Your task to perform on an android device: turn off sleep mode Image 0: 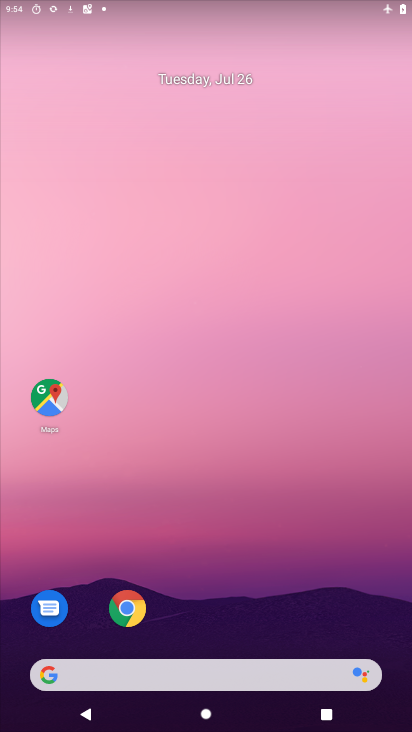
Step 0: drag from (215, 638) to (196, 83)
Your task to perform on an android device: turn off sleep mode Image 1: 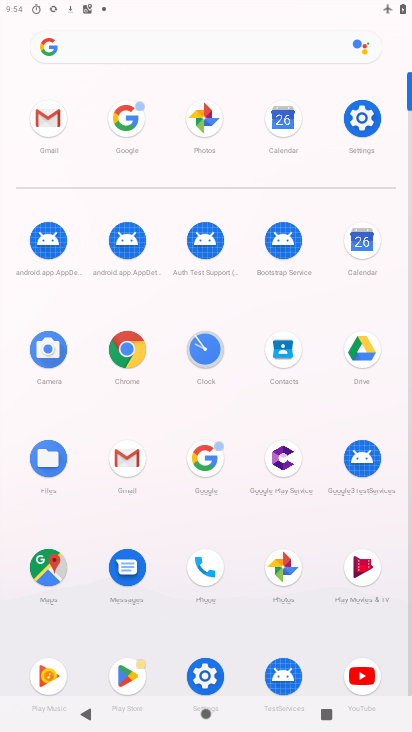
Step 1: click (357, 118)
Your task to perform on an android device: turn off sleep mode Image 2: 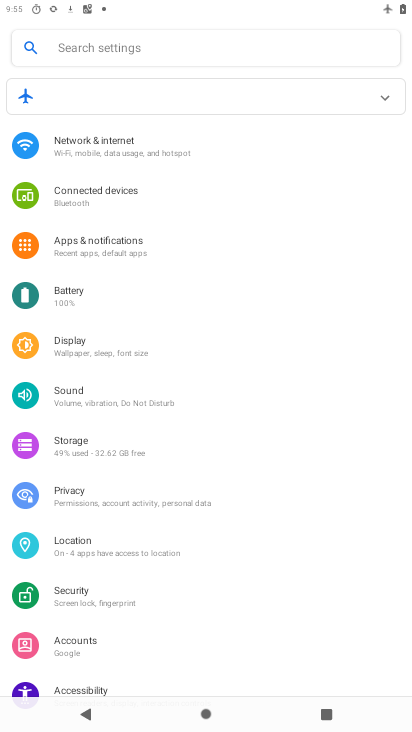
Step 2: click (90, 355)
Your task to perform on an android device: turn off sleep mode Image 3: 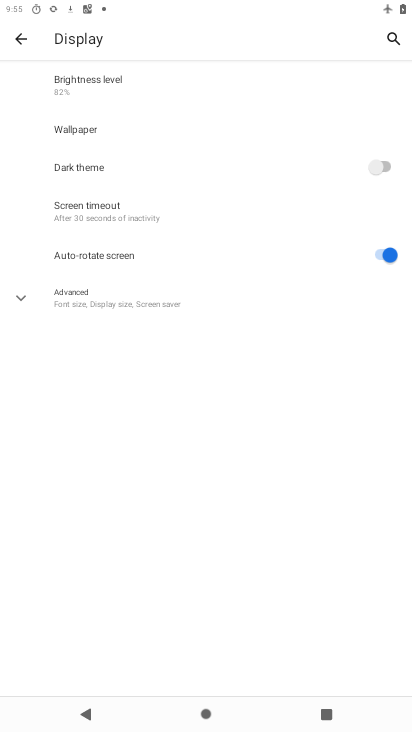
Step 3: click (119, 225)
Your task to perform on an android device: turn off sleep mode Image 4: 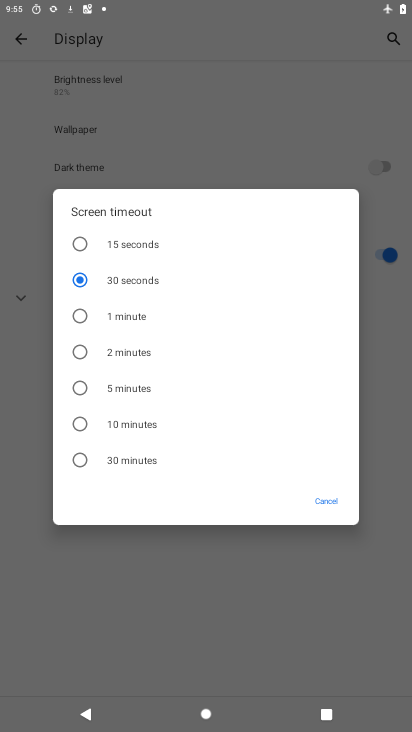
Step 4: click (114, 406)
Your task to perform on an android device: turn off sleep mode Image 5: 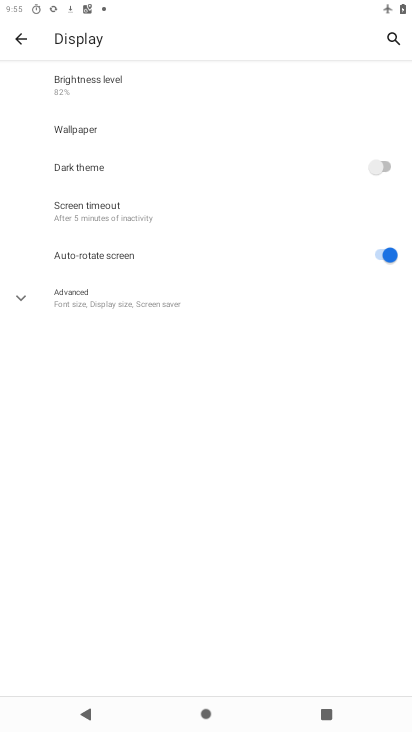
Step 5: task complete